Your task to perform on an android device: toggle show notifications on the lock screen Image 0: 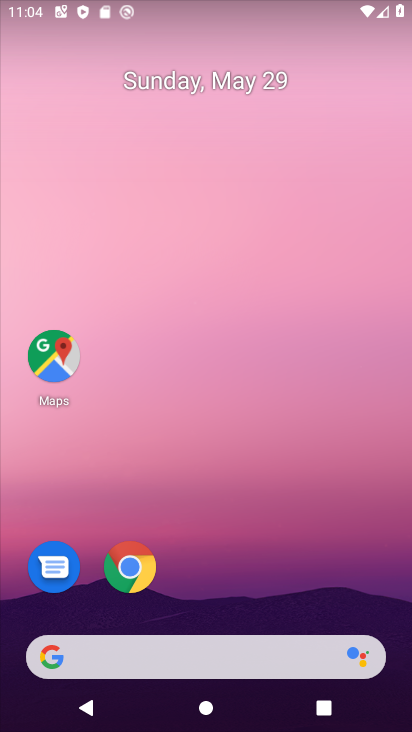
Step 0: drag from (216, 623) to (161, 115)
Your task to perform on an android device: toggle show notifications on the lock screen Image 1: 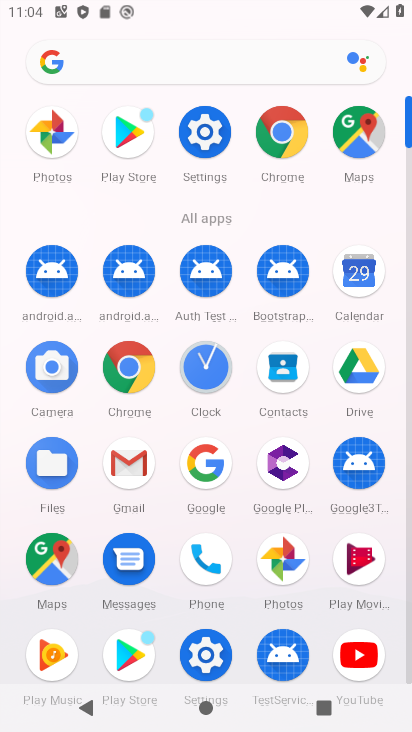
Step 1: click (201, 129)
Your task to perform on an android device: toggle show notifications on the lock screen Image 2: 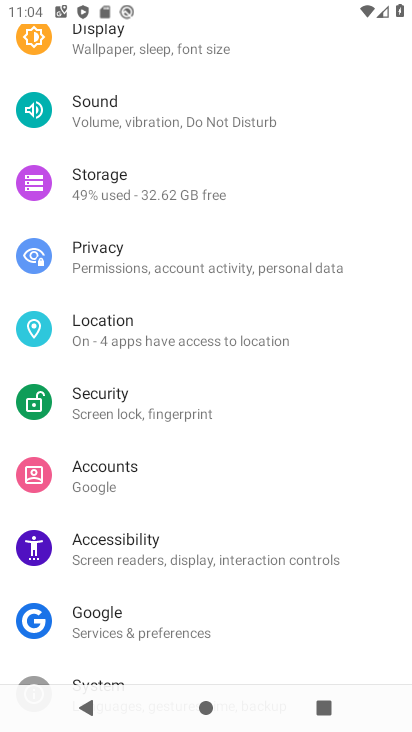
Step 2: drag from (201, 129) to (174, 629)
Your task to perform on an android device: toggle show notifications on the lock screen Image 3: 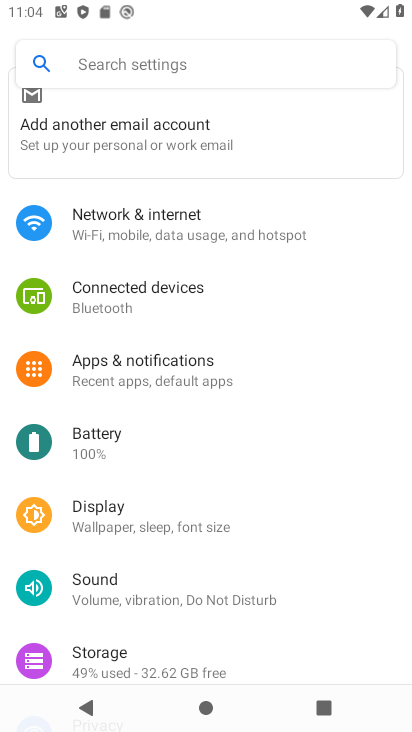
Step 3: click (173, 373)
Your task to perform on an android device: toggle show notifications on the lock screen Image 4: 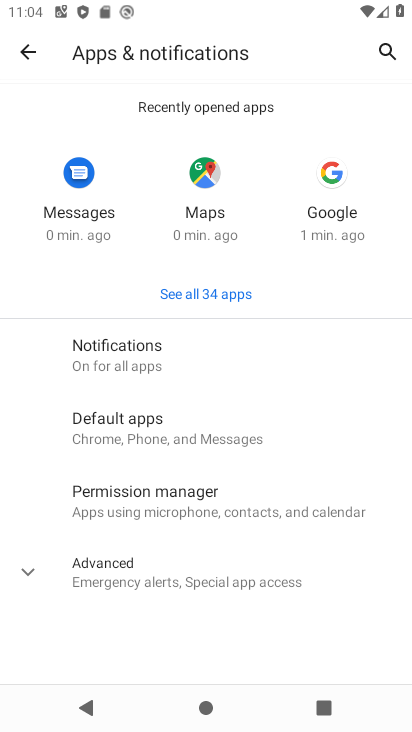
Step 4: click (162, 366)
Your task to perform on an android device: toggle show notifications on the lock screen Image 5: 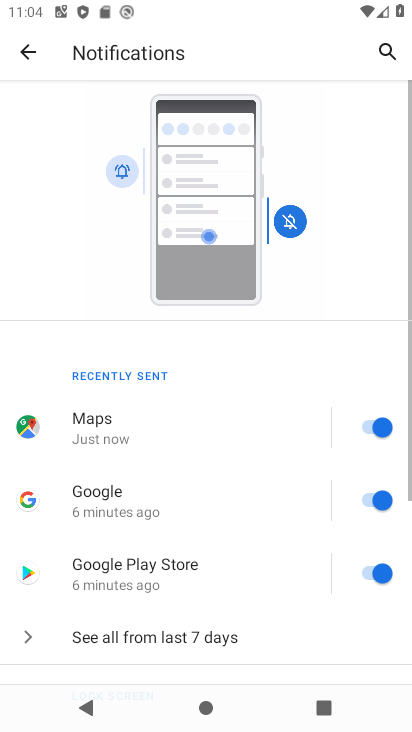
Step 5: drag from (182, 597) to (185, 92)
Your task to perform on an android device: toggle show notifications on the lock screen Image 6: 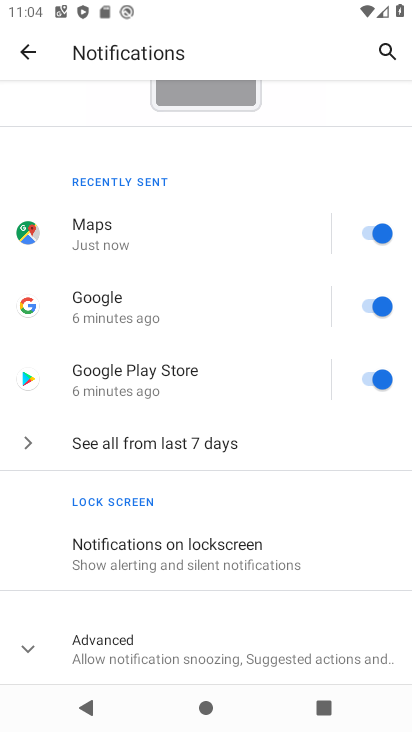
Step 6: click (157, 549)
Your task to perform on an android device: toggle show notifications on the lock screen Image 7: 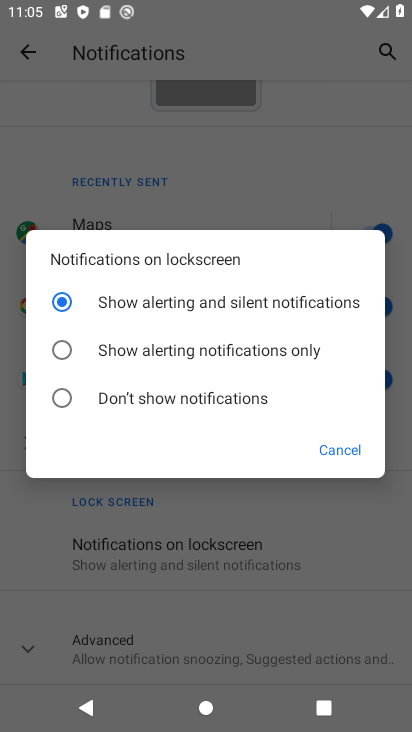
Step 7: click (119, 334)
Your task to perform on an android device: toggle show notifications on the lock screen Image 8: 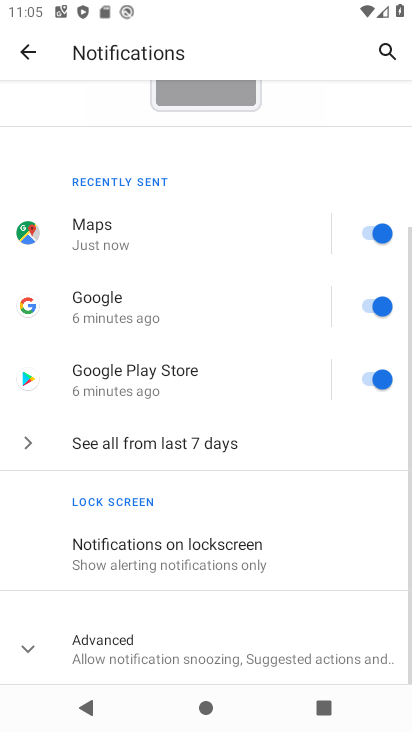
Step 8: task complete